Your task to perform on an android device: see tabs open on other devices in the chrome app Image 0: 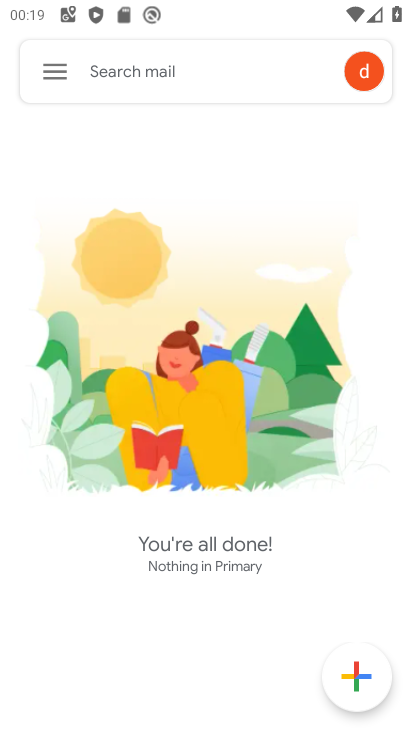
Step 0: press home button
Your task to perform on an android device: see tabs open on other devices in the chrome app Image 1: 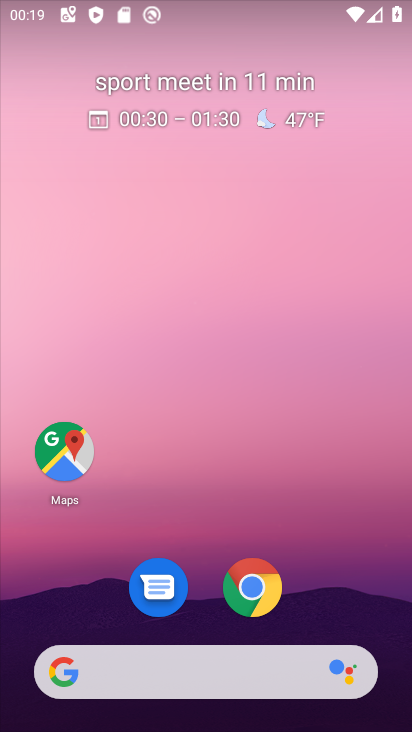
Step 1: click (245, 587)
Your task to perform on an android device: see tabs open on other devices in the chrome app Image 2: 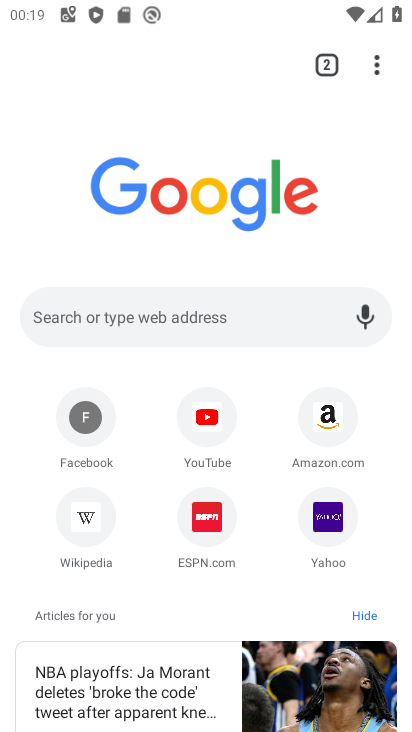
Step 2: click (371, 64)
Your task to perform on an android device: see tabs open on other devices in the chrome app Image 3: 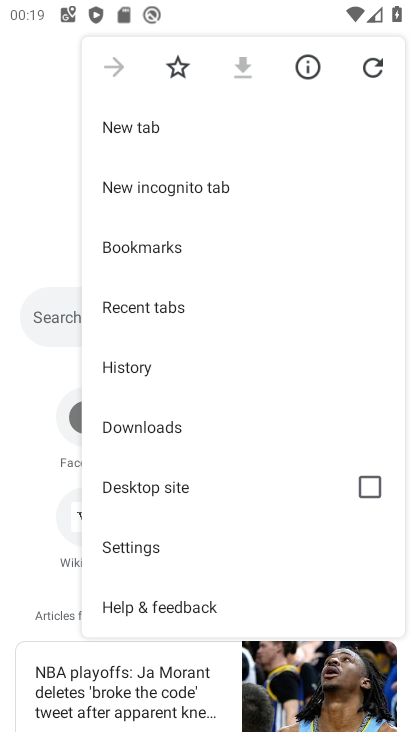
Step 3: click (134, 301)
Your task to perform on an android device: see tabs open on other devices in the chrome app Image 4: 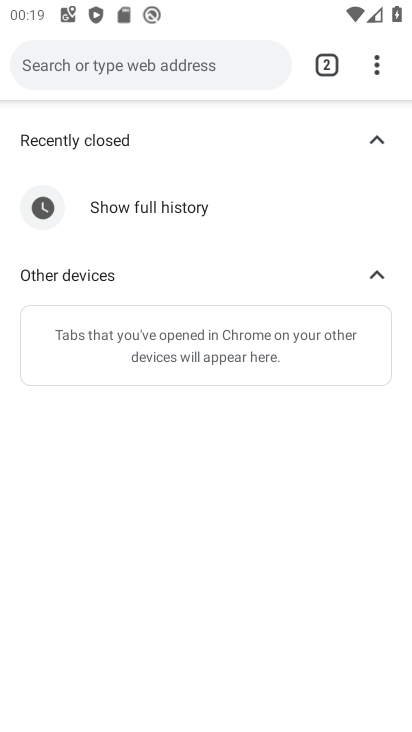
Step 4: task complete